Your task to perform on an android device: turn on the 12-hour format for clock Image 0: 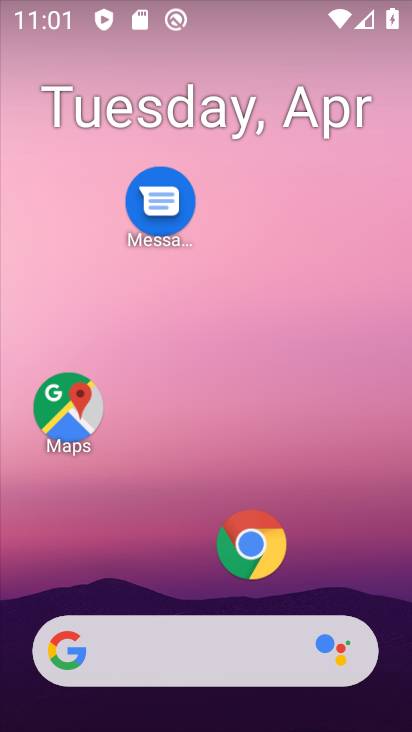
Step 0: drag from (177, 593) to (266, 19)
Your task to perform on an android device: turn on the 12-hour format for clock Image 1: 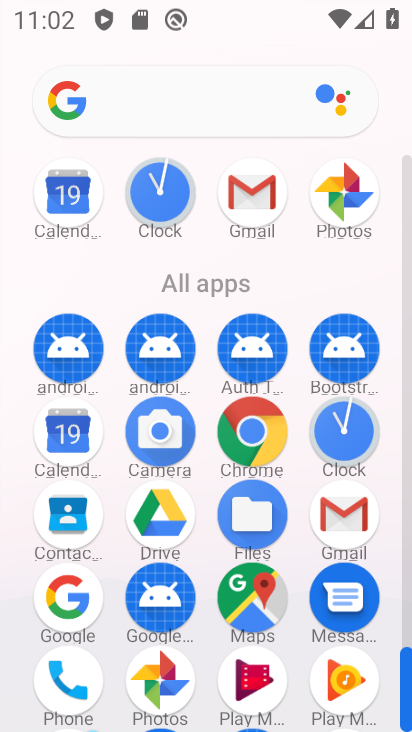
Step 1: click (281, 151)
Your task to perform on an android device: turn on the 12-hour format for clock Image 2: 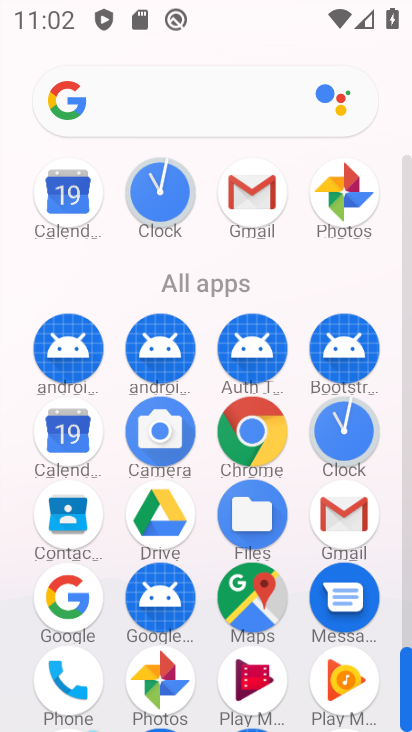
Step 2: drag from (208, 622) to (244, 272)
Your task to perform on an android device: turn on the 12-hour format for clock Image 3: 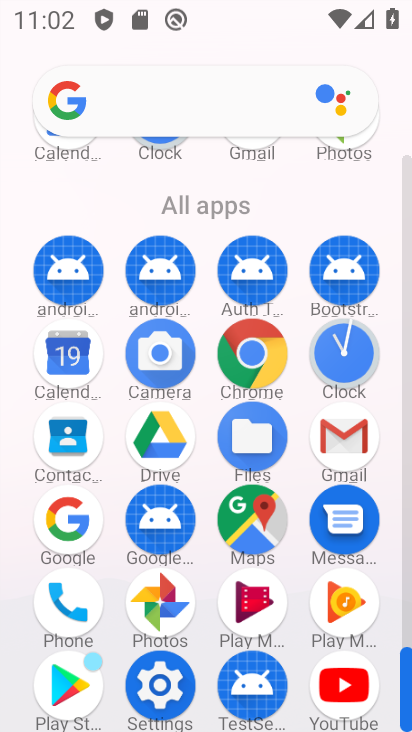
Step 3: click (160, 684)
Your task to perform on an android device: turn on the 12-hour format for clock Image 4: 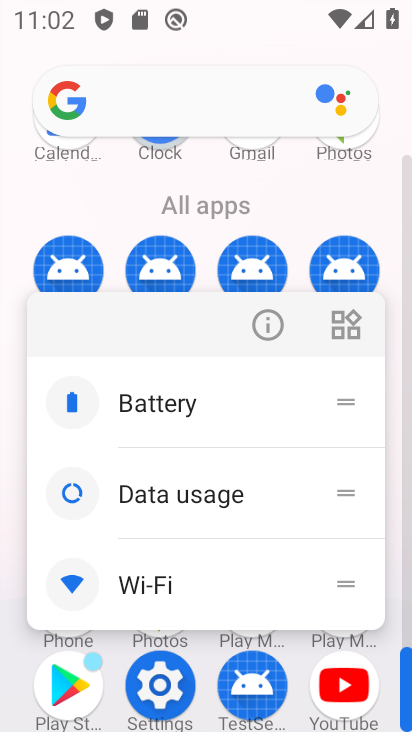
Step 4: click (158, 690)
Your task to perform on an android device: turn on the 12-hour format for clock Image 5: 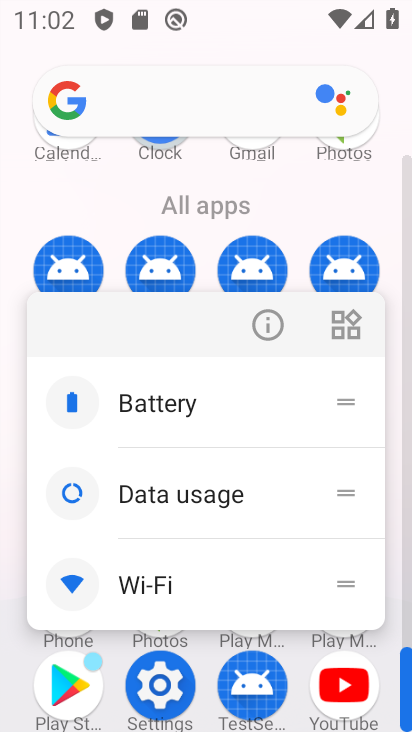
Step 5: click (155, 684)
Your task to perform on an android device: turn on the 12-hour format for clock Image 6: 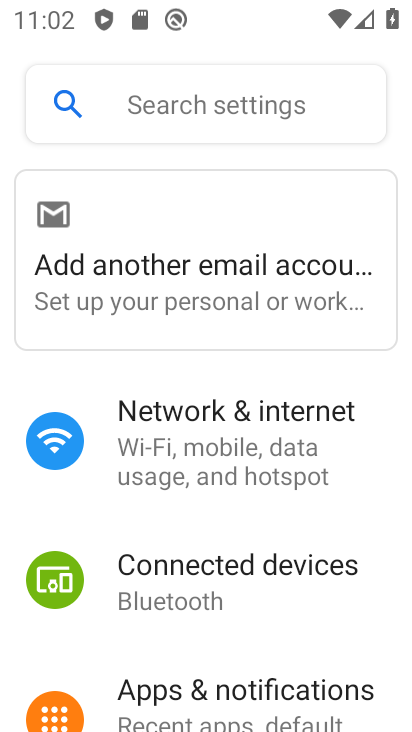
Step 6: drag from (189, 656) to (251, 298)
Your task to perform on an android device: turn on the 12-hour format for clock Image 7: 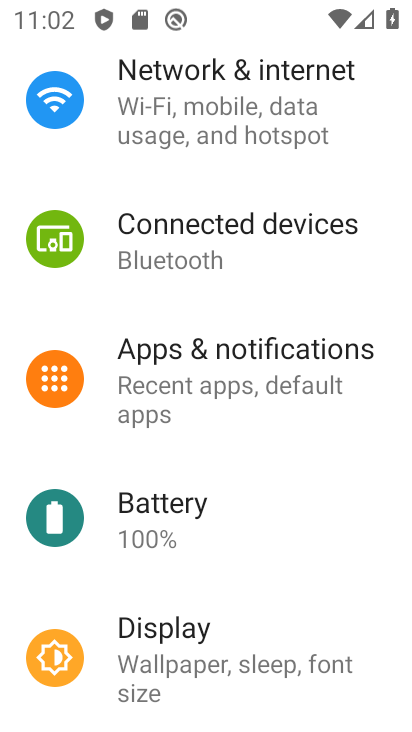
Step 7: drag from (185, 564) to (294, 138)
Your task to perform on an android device: turn on the 12-hour format for clock Image 8: 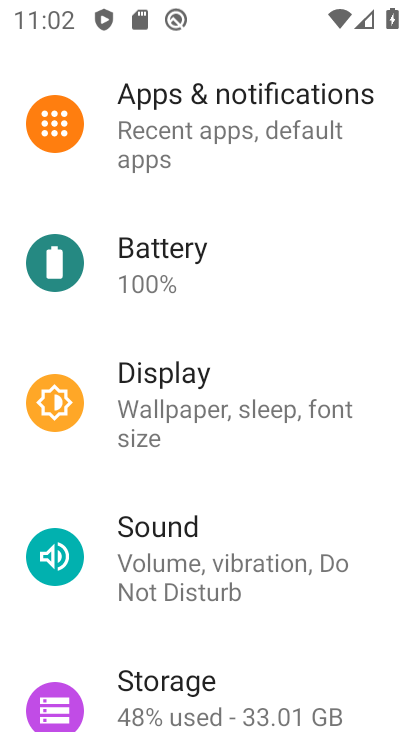
Step 8: drag from (190, 573) to (339, 1)
Your task to perform on an android device: turn on the 12-hour format for clock Image 9: 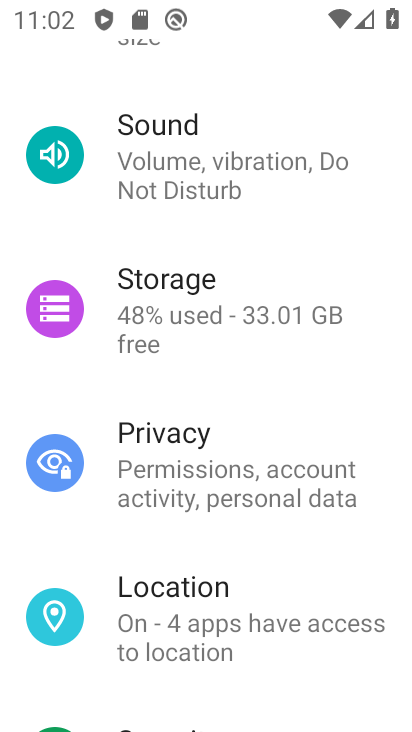
Step 9: drag from (198, 559) to (270, 128)
Your task to perform on an android device: turn on the 12-hour format for clock Image 10: 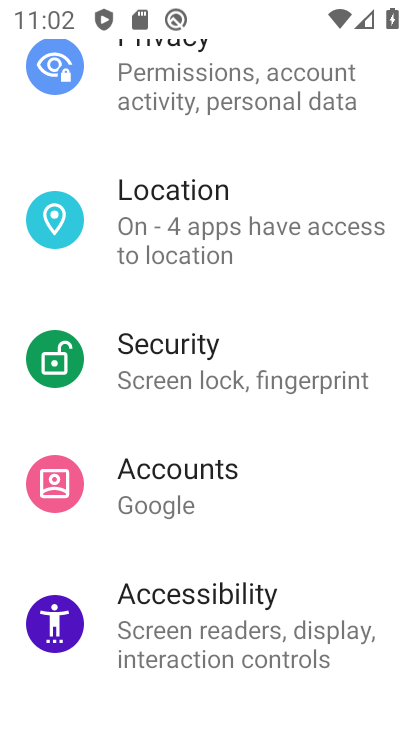
Step 10: drag from (188, 627) to (266, 159)
Your task to perform on an android device: turn on the 12-hour format for clock Image 11: 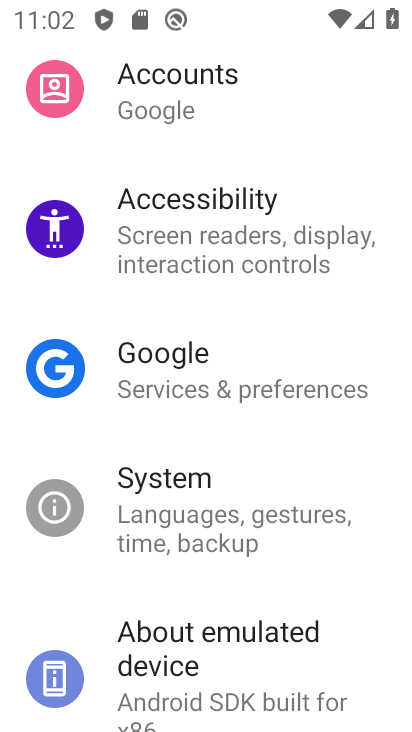
Step 11: click (188, 520)
Your task to perform on an android device: turn on the 12-hour format for clock Image 12: 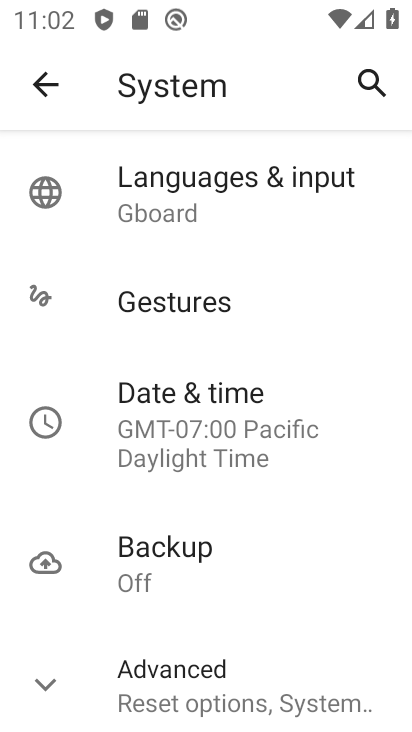
Step 12: click (198, 446)
Your task to perform on an android device: turn on the 12-hour format for clock Image 13: 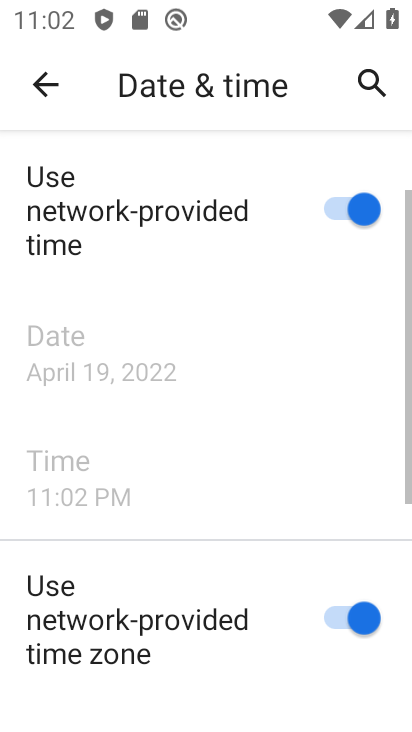
Step 13: task complete